Your task to perform on an android device: add a contact Image 0: 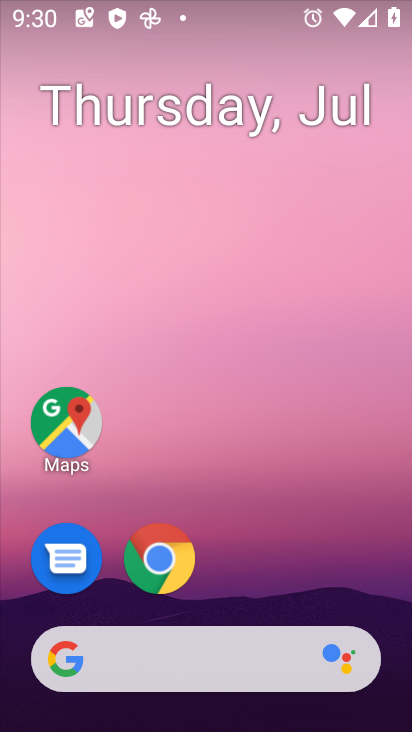
Step 0: drag from (381, 561) to (385, 90)
Your task to perform on an android device: add a contact Image 1: 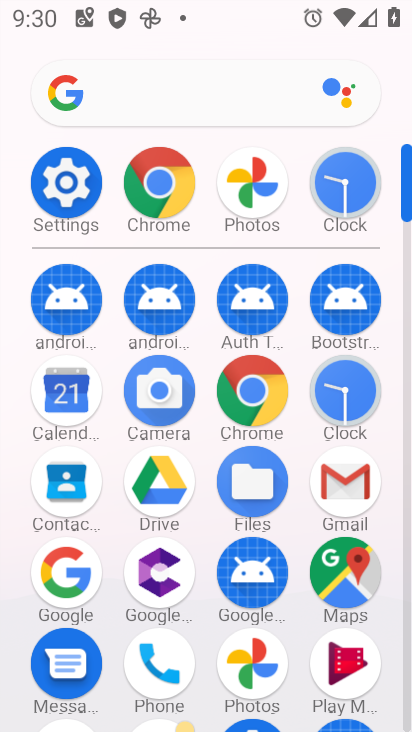
Step 1: click (67, 492)
Your task to perform on an android device: add a contact Image 2: 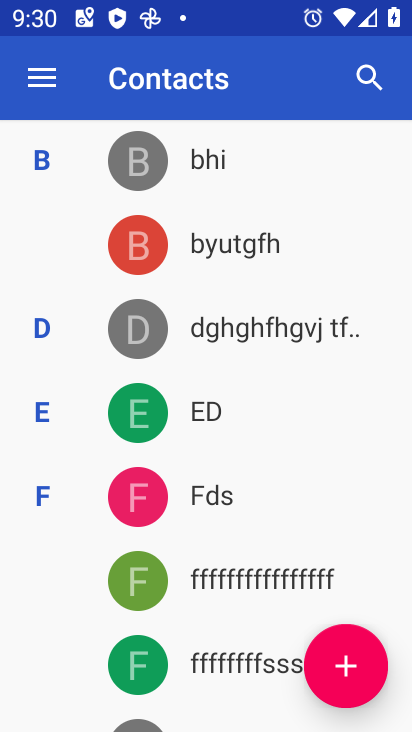
Step 2: click (342, 673)
Your task to perform on an android device: add a contact Image 3: 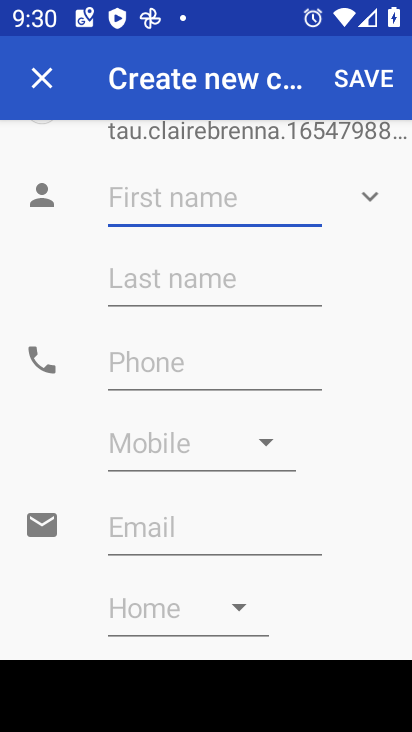
Step 3: type "me"
Your task to perform on an android device: add a contact Image 4: 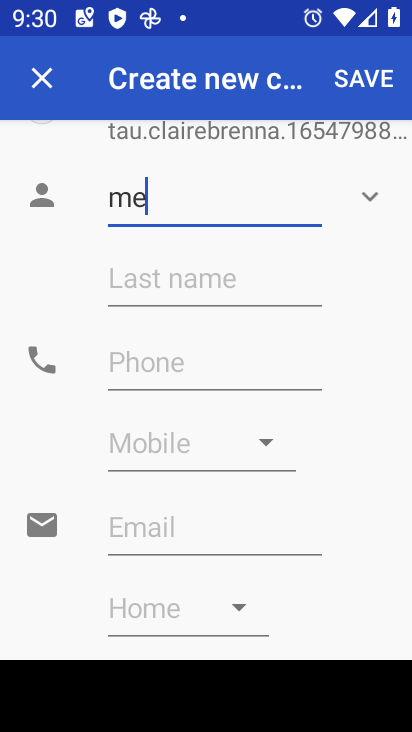
Step 4: click (205, 378)
Your task to perform on an android device: add a contact Image 5: 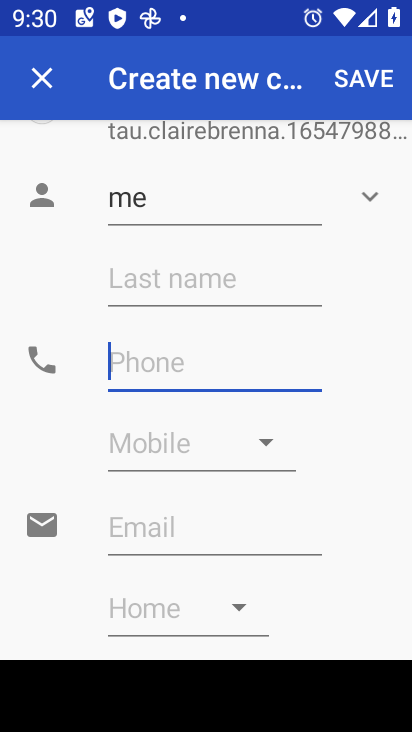
Step 5: type "1234556"
Your task to perform on an android device: add a contact Image 6: 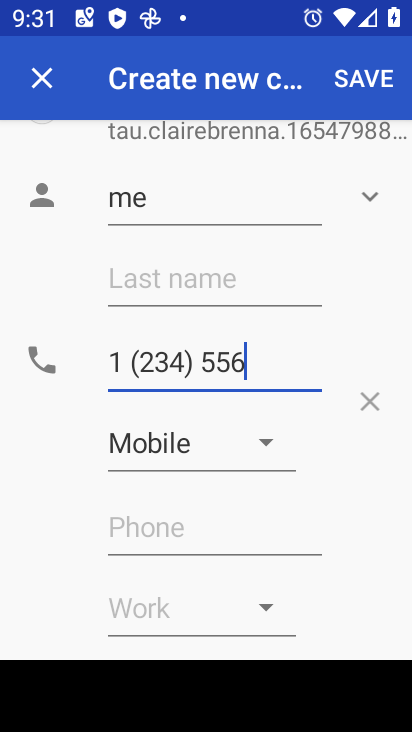
Step 6: click (367, 86)
Your task to perform on an android device: add a contact Image 7: 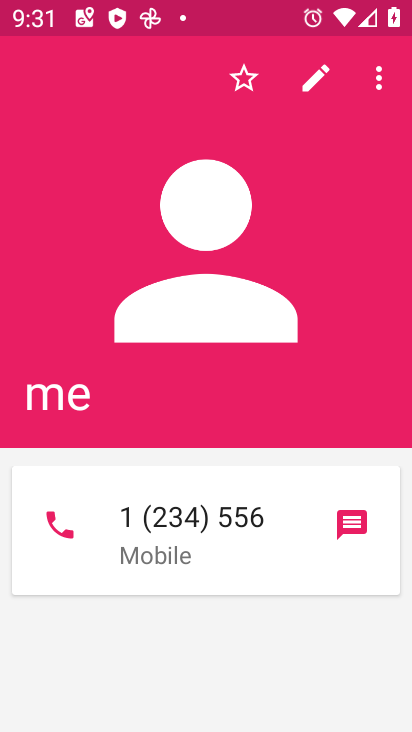
Step 7: task complete